Your task to perform on an android device: What's on my calendar tomorrow? Image 0: 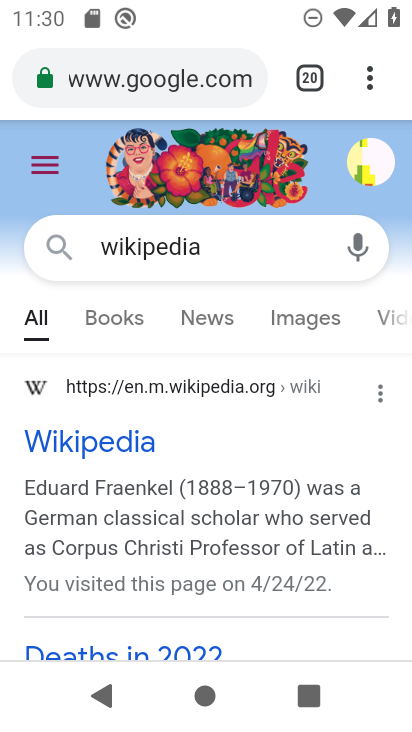
Step 0: press home button
Your task to perform on an android device: What's on my calendar tomorrow? Image 1: 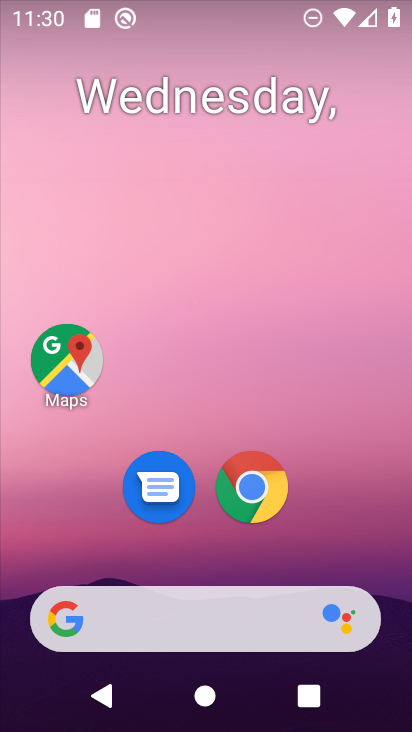
Step 1: drag from (328, 527) to (220, 36)
Your task to perform on an android device: What's on my calendar tomorrow? Image 2: 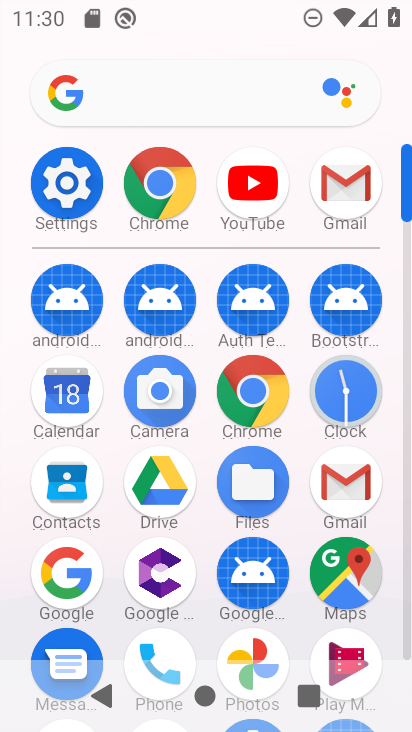
Step 2: click (77, 391)
Your task to perform on an android device: What's on my calendar tomorrow? Image 3: 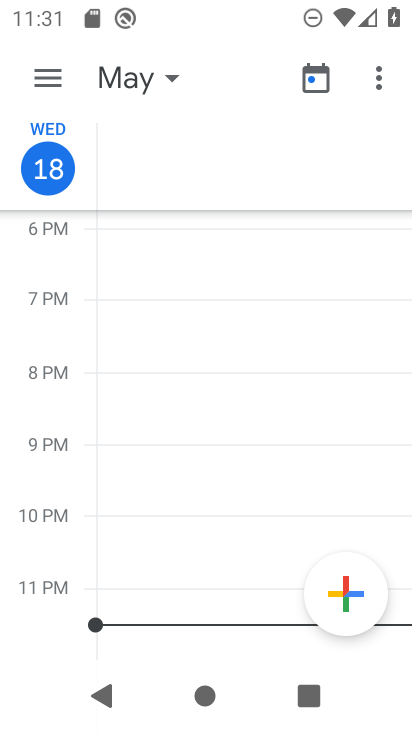
Step 3: click (173, 72)
Your task to perform on an android device: What's on my calendar tomorrow? Image 4: 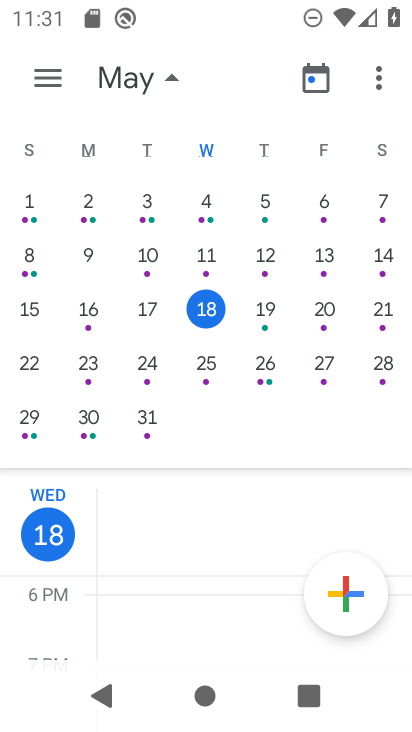
Step 4: click (262, 306)
Your task to perform on an android device: What's on my calendar tomorrow? Image 5: 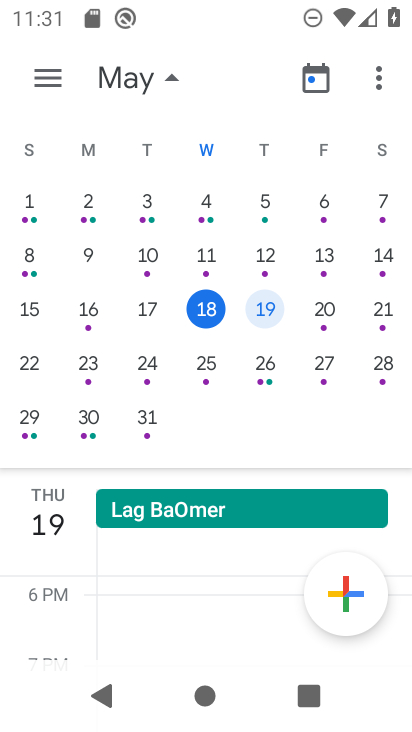
Step 5: click (324, 306)
Your task to perform on an android device: What's on my calendar tomorrow? Image 6: 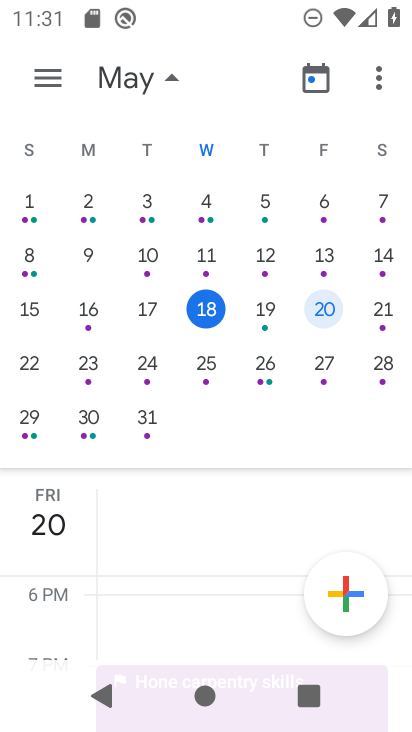
Step 6: task complete